Your task to perform on an android device: turn off picture-in-picture Image 0: 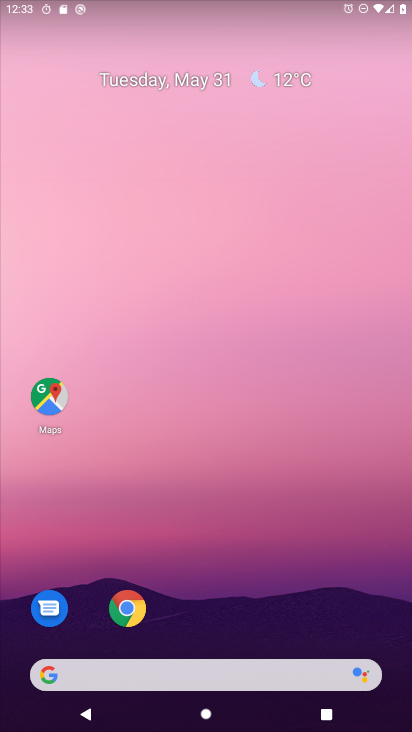
Step 0: click (129, 613)
Your task to perform on an android device: turn off picture-in-picture Image 1: 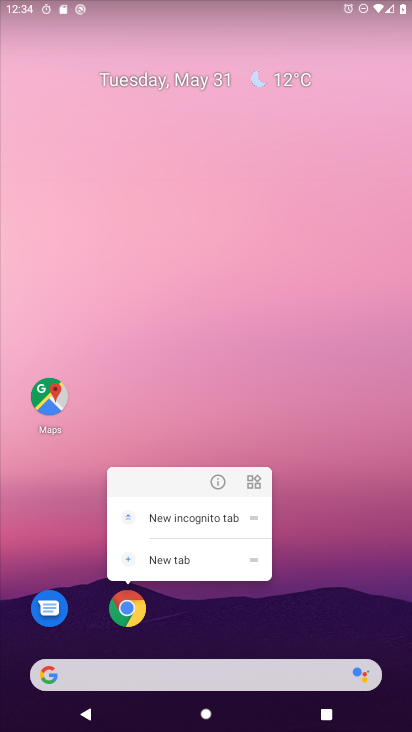
Step 1: click (217, 482)
Your task to perform on an android device: turn off picture-in-picture Image 2: 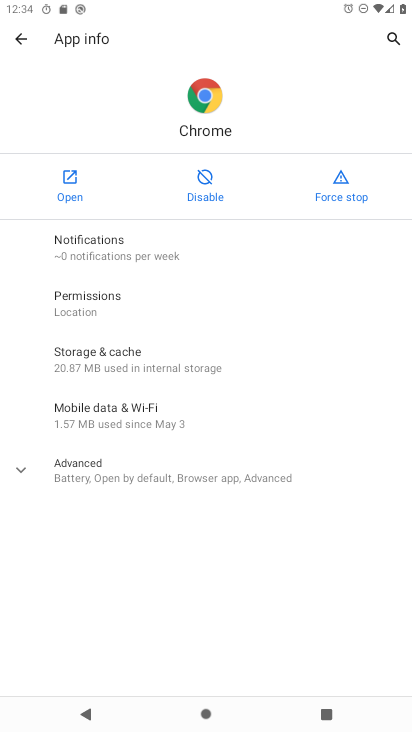
Step 2: click (24, 474)
Your task to perform on an android device: turn off picture-in-picture Image 3: 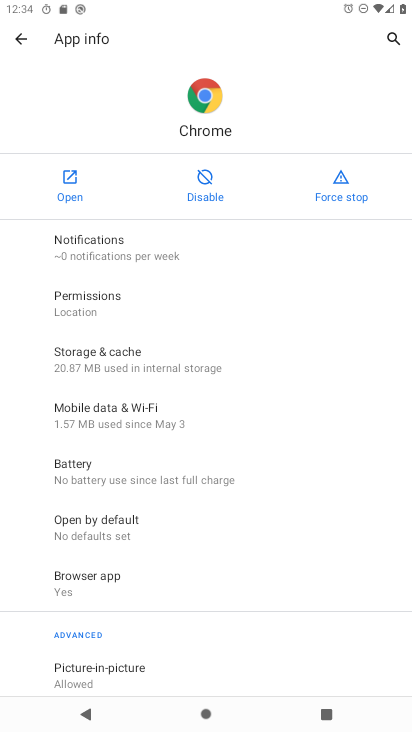
Step 3: drag from (153, 573) to (176, 355)
Your task to perform on an android device: turn off picture-in-picture Image 4: 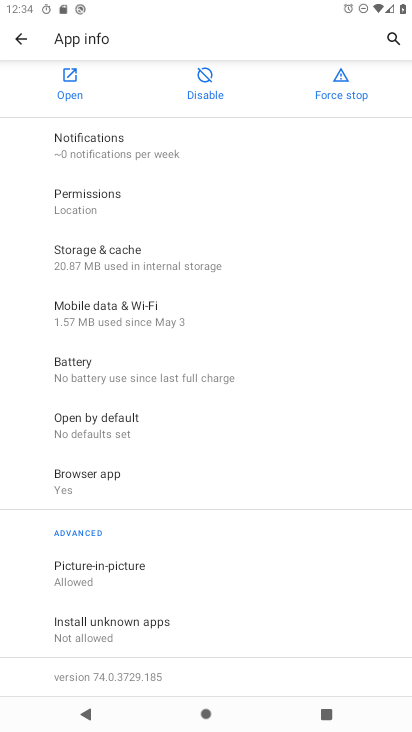
Step 4: click (67, 570)
Your task to perform on an android device: turn off picture-in-picture Image 5: 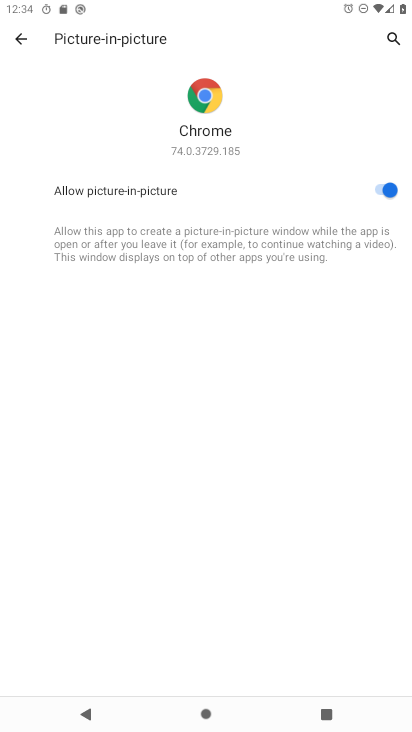
Step 5: click (394, 190)
Your task to perform on an android device: turn off picture-in-picture Image 6: 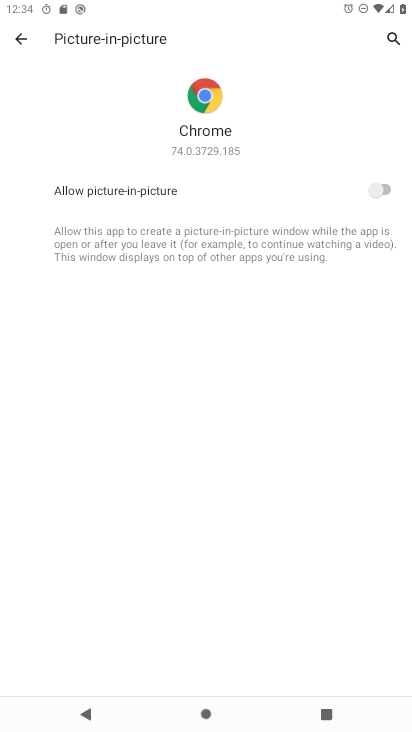
Step 6: task complete